Your task to perform on an android device: Turn on the flashlight Image 0: 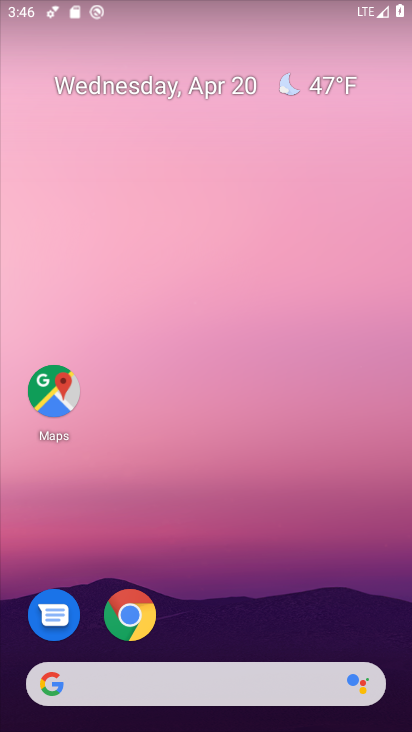
Step 0: drag from (237, 625) to (238, 166)
Your task to perform on an android device: Turn on the flashlight Image 1: 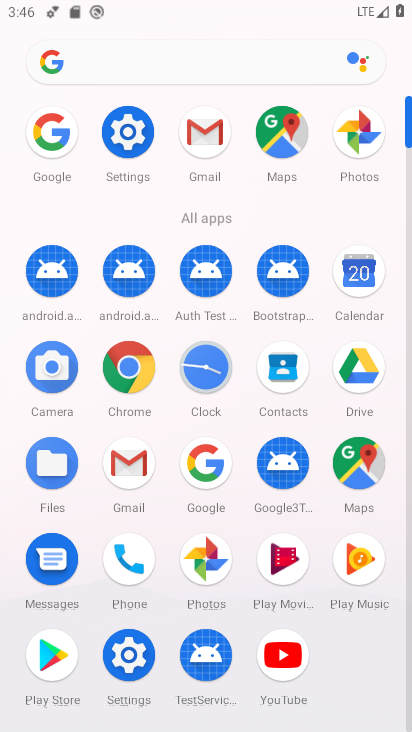
Step 1: click (125, 144)
Your task to perform on an android device: Turn on the flashlight Image 2: 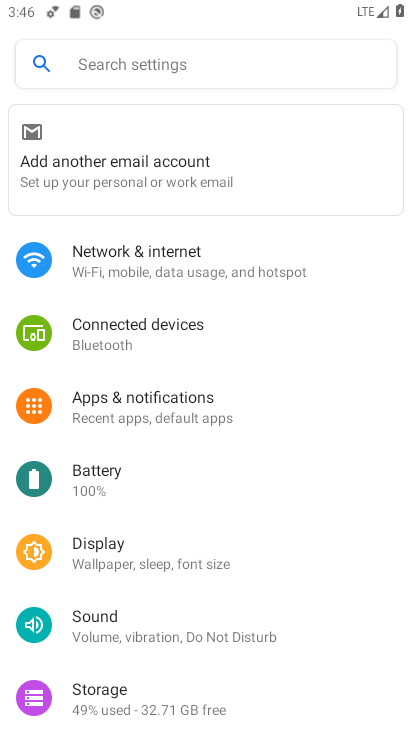
Step 2: task complete